Your task to perform on an android device: open app "NewsBreak: Local News & Alerts" Image 0: 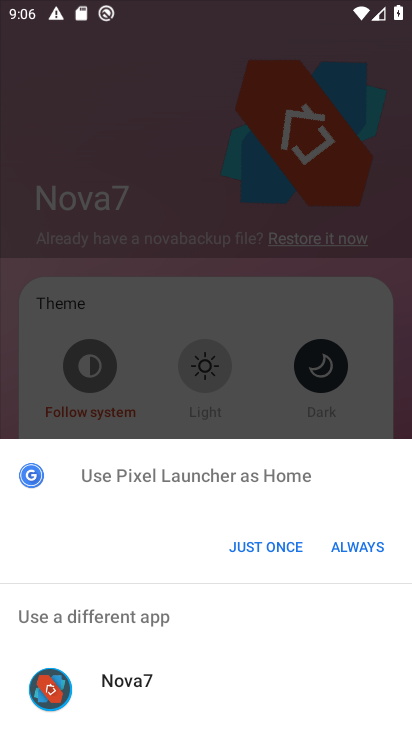
Step 0: press home button
Your task to perform on an android device: open app "NewsBreak: Local News & Alerts" Image 1: 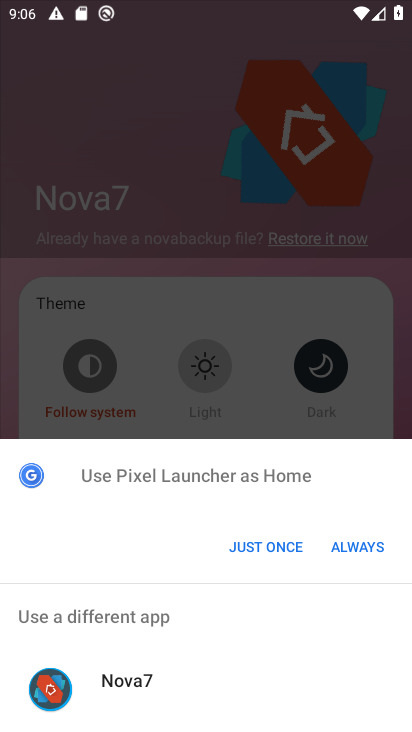
Step 1: click (276, 541)
Your task to perform on an android device: open app "NewsBreak: Local News & Alerts" Image 2: 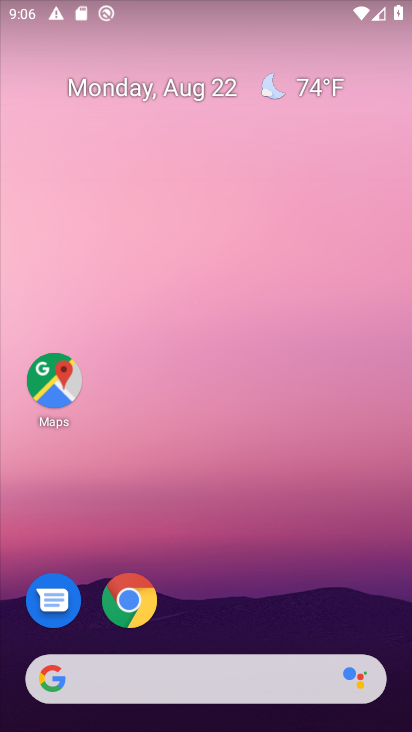
Step 2: drag from (221, 600) to (229, 58)
Your task to perform on an android device: open app "NewsBreak: Local News & Alerts" Image 3: 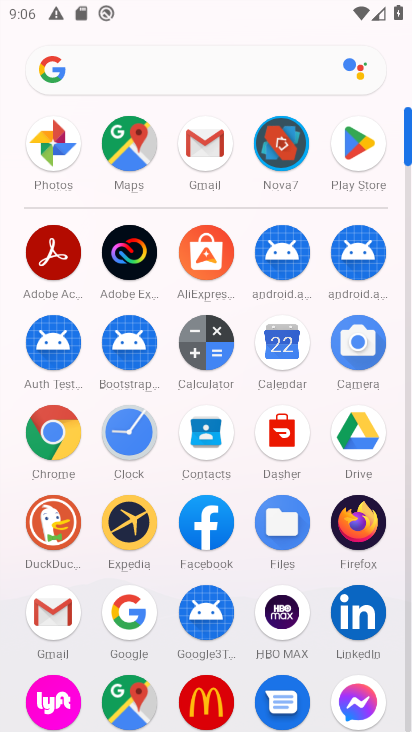
Step 3: click (349, 156)
Your task to perform on an android device: open app "NewsBreak: Local News & Alerts" Image 4: 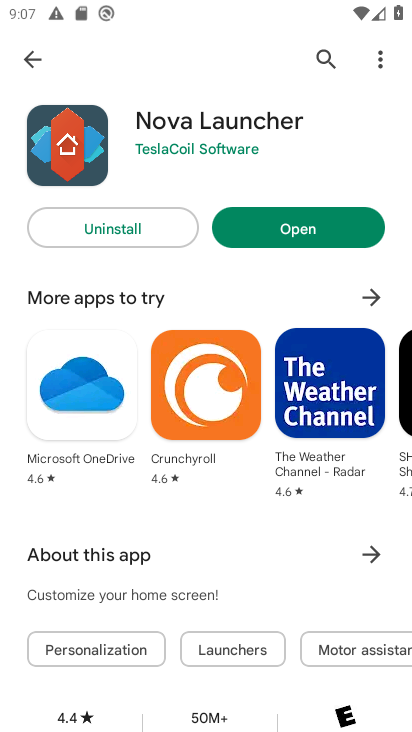
Step 4: click (326, 58)
Your task to perform on an android device: open app "NewsBreak: Local News & Alerts" Image 5: 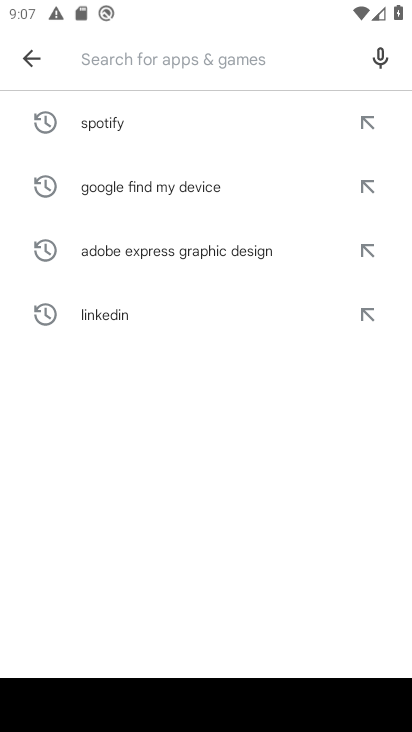
Step 5: type "NewsBreak: Local News & Alerts"
Your task to perform on an android device: open app "NewsBreak: Local News & Alerts" Image 6: 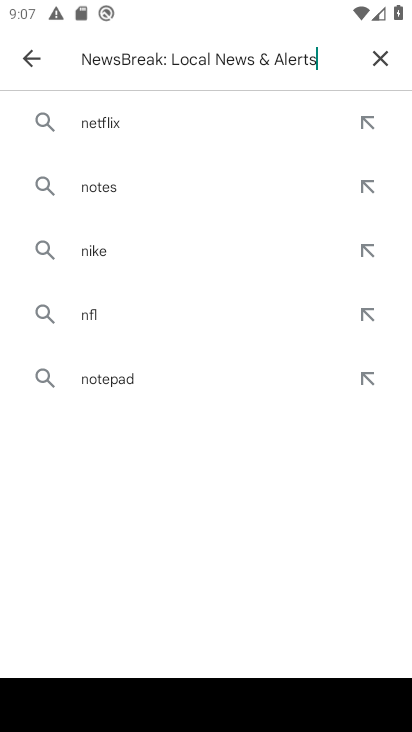
Step 6: type ""
Your task to perform on an android device: open app "NewsBreak: Local News & Alerts" Image 7: 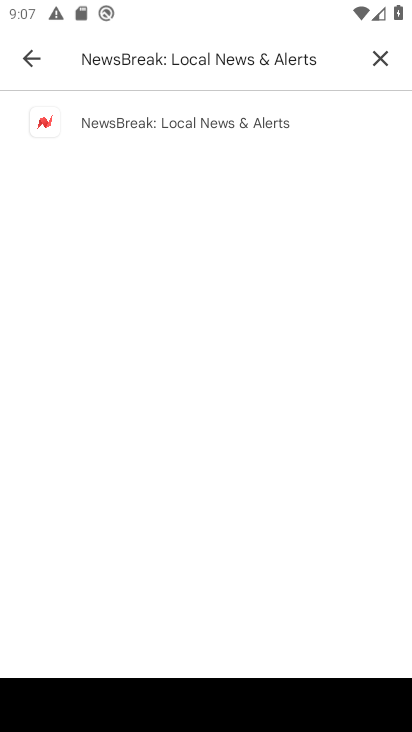
Step 7: click (161, 120)
Your task to perform on an android device: open app "NewsBreak: Local News & Alerts" Image 8: 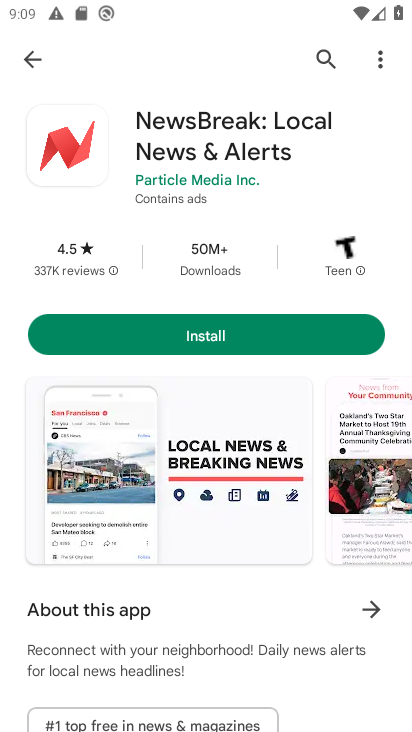
Step 8: task complete